Your task to perform on an android device: turn on translation in the chrome app Image 0: 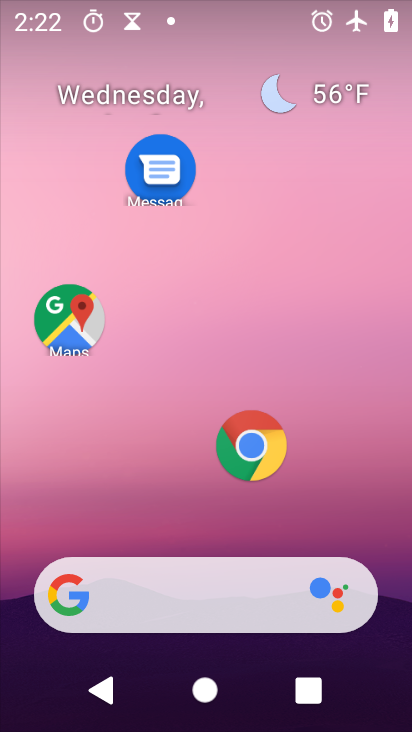
Step 0: drag from (218, 528) to (250, 79)
Your task to perform on an android device: turn on translation in the chrome app Image 1: 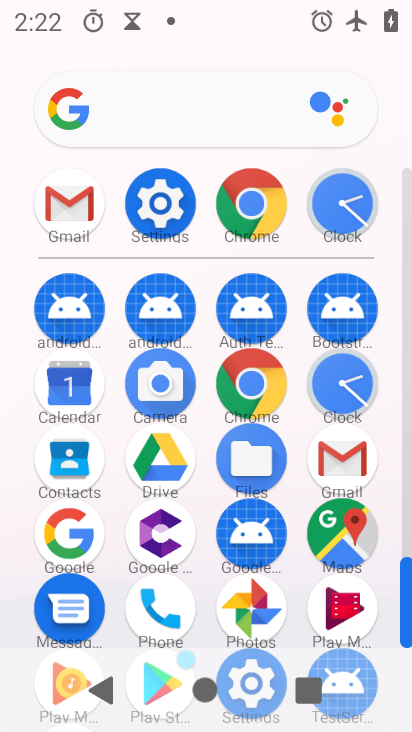
Step 1: click (247, 393)
Your task to perform on an android device: turn on translation in the chrome app Image 2: 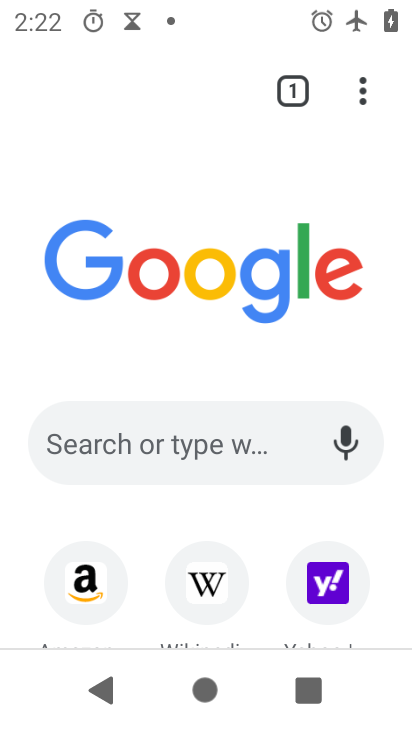
Step 2: click (361, 94)
Your task to perform on an android device: turn on translation in the chrome app Image 3: 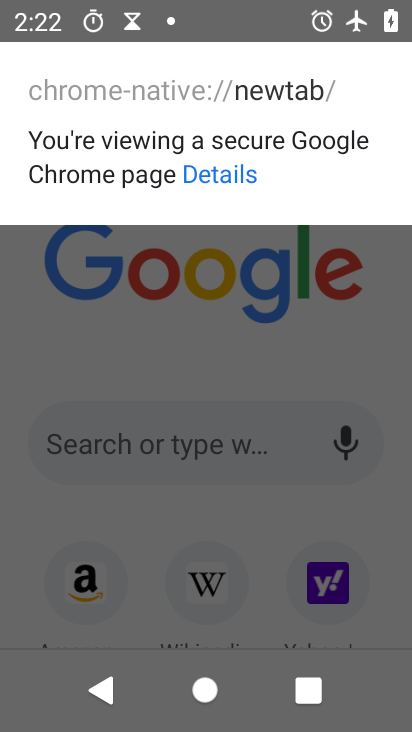
Step 3: click (297, 266)
Your task to perform on an android device: turn on translation in the chrome app Image 4: 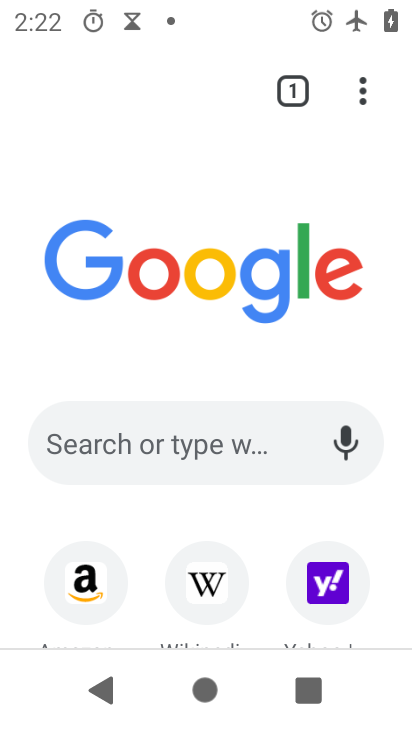
Step 4: click (359, 100)
Your task to perform on an android device: turn on translation in the chrome app Image 5: 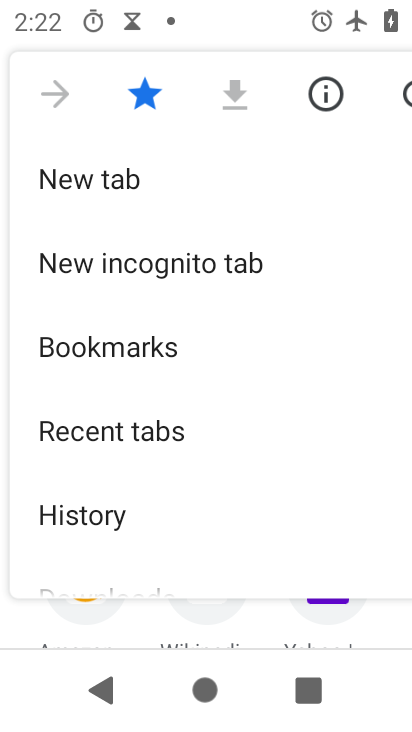
Step 5: drag from (186, 507) to (222, 94)
Your task to perform on an android device: turn on translation in the chrome app Image 6: 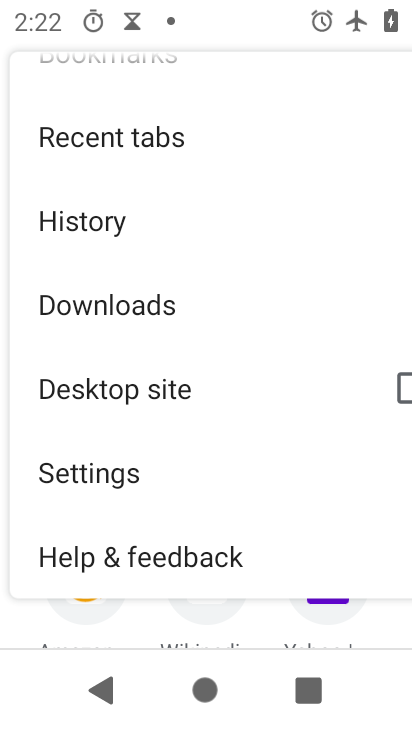
Step 6: drag from (153, 516) to (175, 328)
Your task to perform on an android device: turn on translation in the chrome app Image 7: 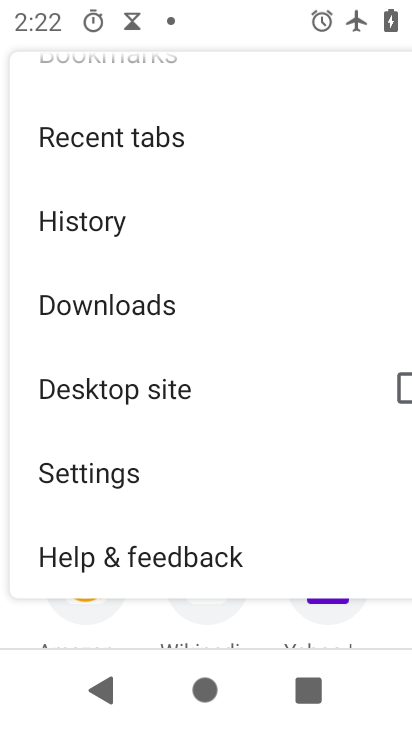
Step 7: click (153, 483)
Your task to perform on an android device: turn on translation in the chrome app Image 8: 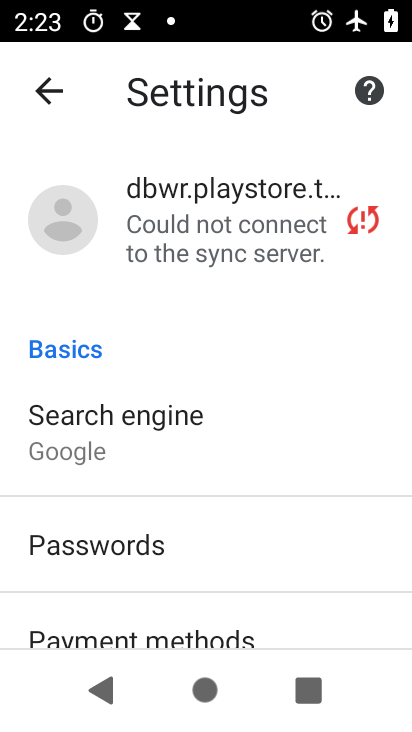
Step 8: drag from (158, 558) to (187, 170)
Your task to perform on an android device: turn on translation in the chrome app Image 9: 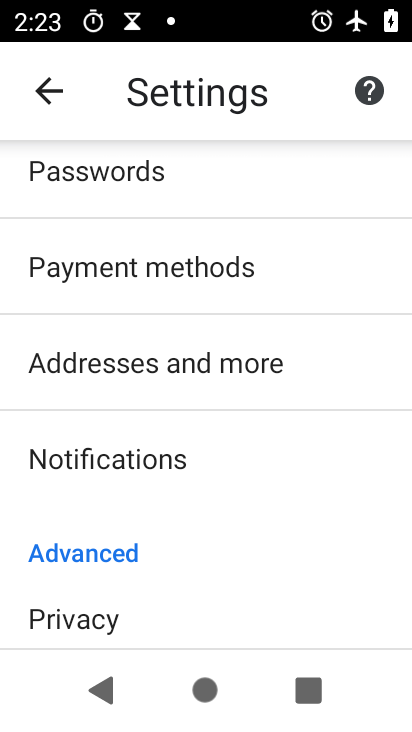
Step 9: drag from (165, 561) to (199, 249)
Your task to perform on an android device: turn on translation in the chrome app Image 10: 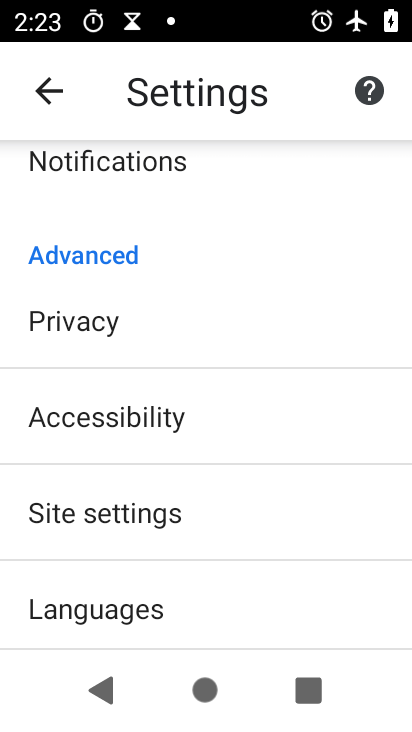
Step 10: click (161, 522)
Your task to perform on an android device: turn on translation in the chrome app Image 11: 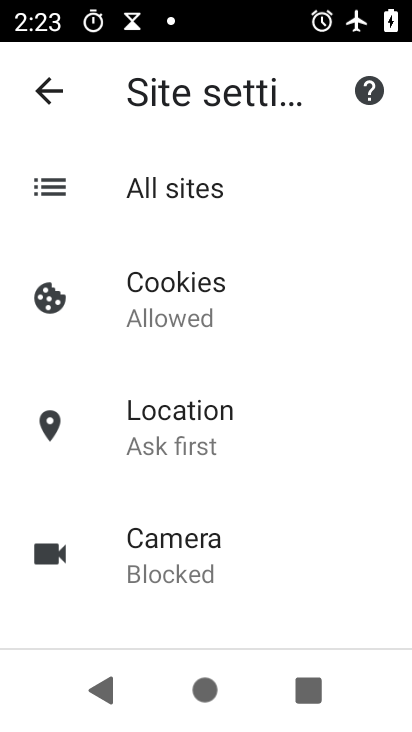
Step 11: press back button
Your task to perform on an android device: turn on translation in the chrome app Image 12: 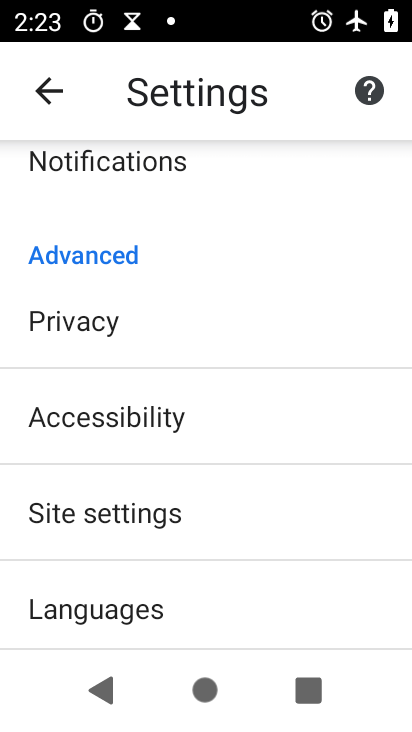
Step 12: click (158, 609)
Your task to perform on an android device: turn on translation in the chrome app Image 13: 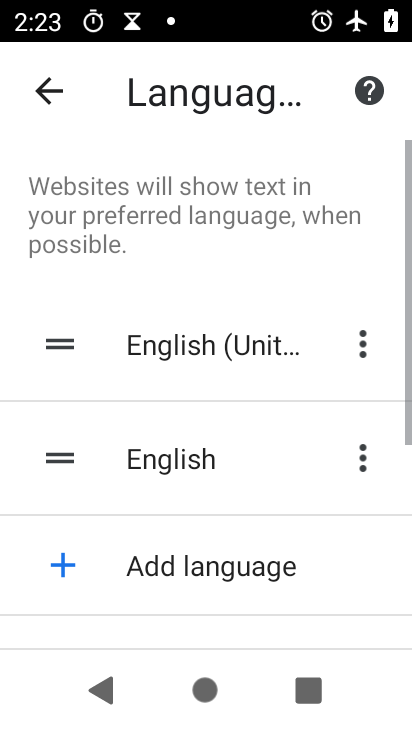
Step 13: task complete